Your task to perform on an android device: open wifi settings Image 0: 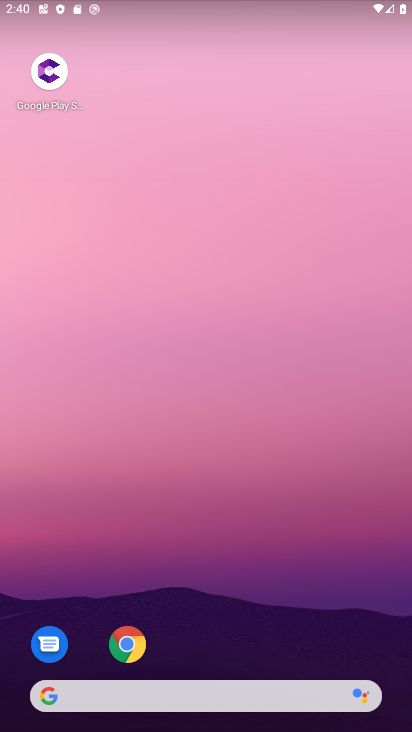
Step 0: drag from (260, 651) to (260, 353)
Your task to perform on an android device: open wifi settings Image 1: 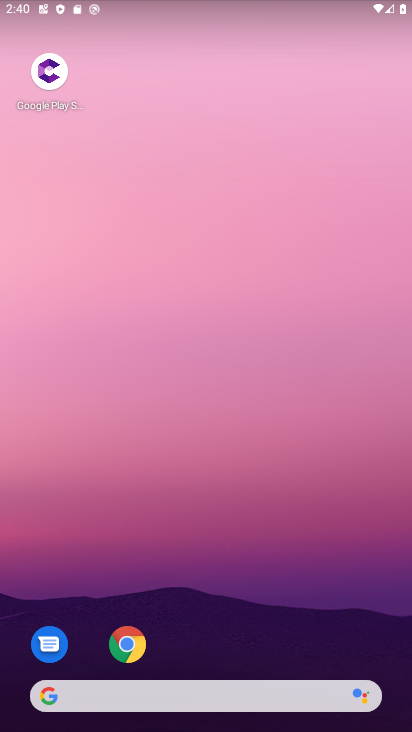
Step 1: drag from (260, 660) to (263, 79)
Your task to perform on an android device: open wifi settings Image 2: 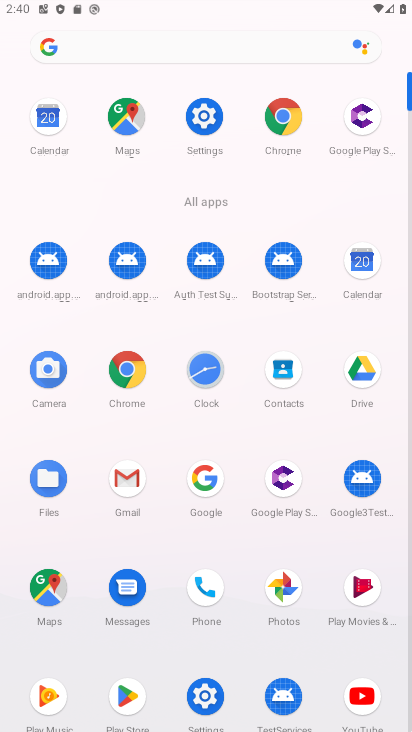
Step 2: click (188, 118)
Your task to perform on an android device: open wifi settings Image 3: 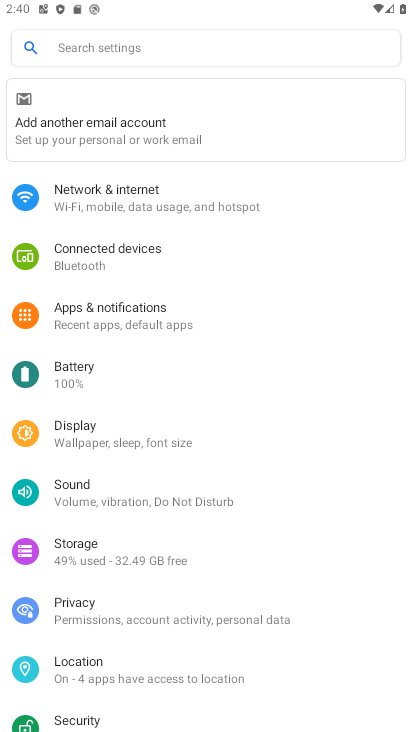
Step 3: click (185, 183)
Your task to perform on an android device: open wifi settings Image 4: 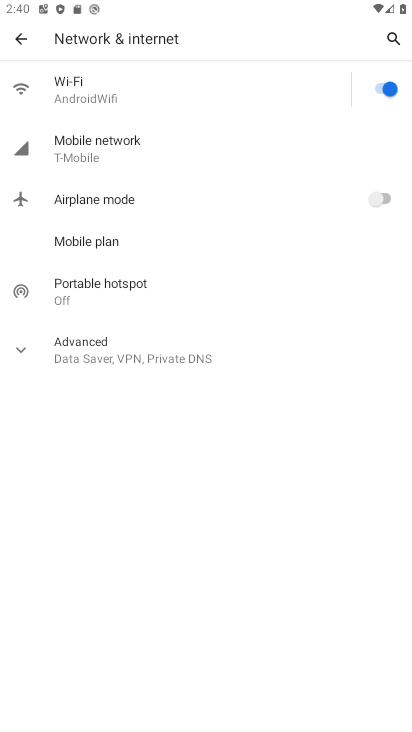
Step 4: task complete